Your task to perform on an android device: Add acer nitro to the cart on target.com Image 0: 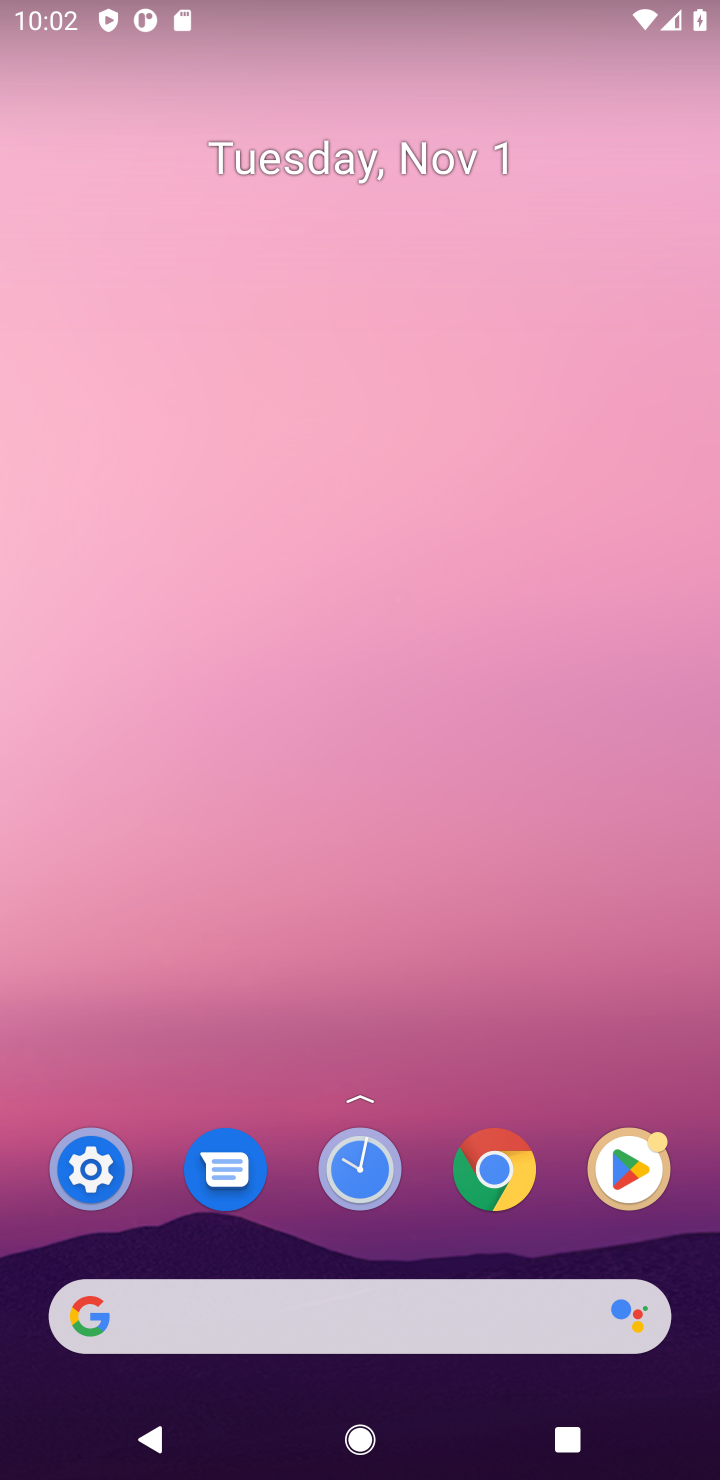
Step 0: click (475, 1164)
Your task to perform on an android device: Add acer nitro to the cart on target.com Image 1: 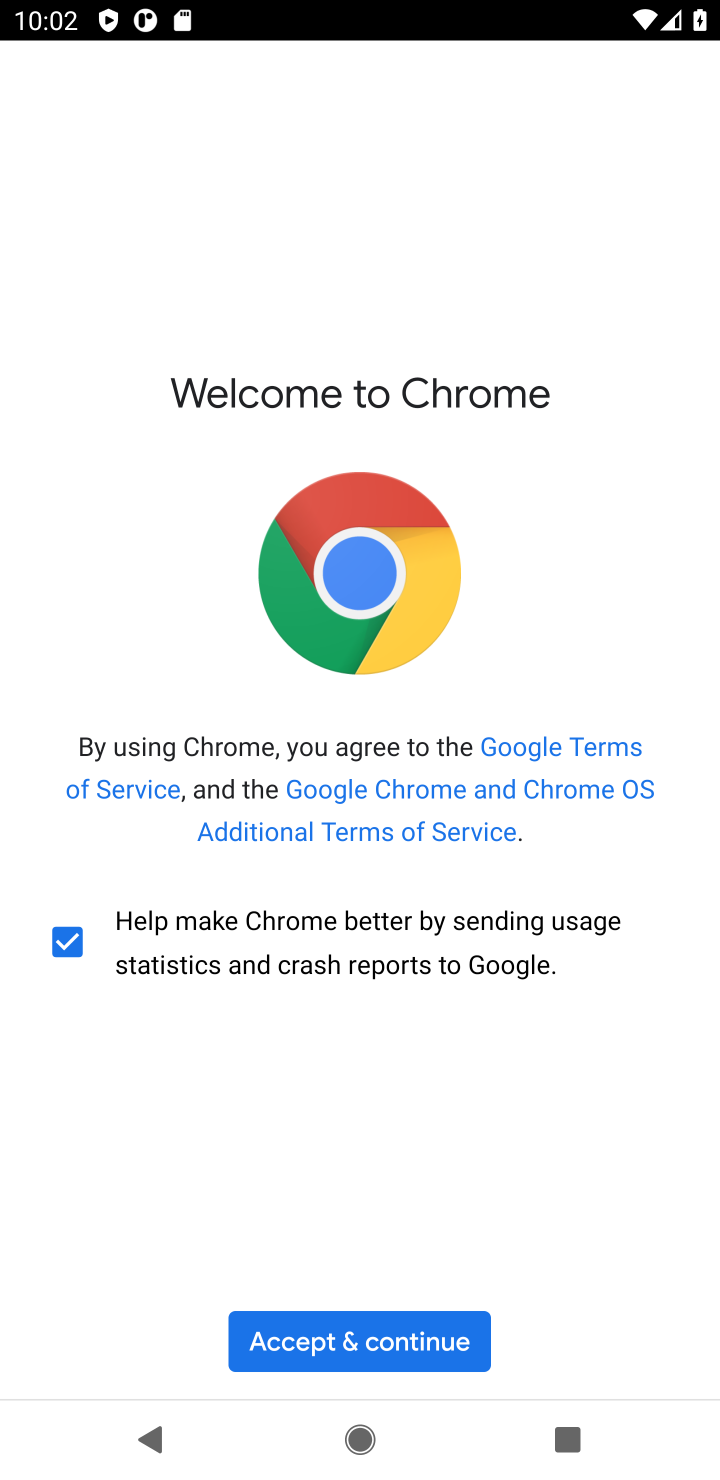
Step 1: click (408, 1322)
Your task to perform on an android device: Add acer nitro to the cart on target.com Image 2: 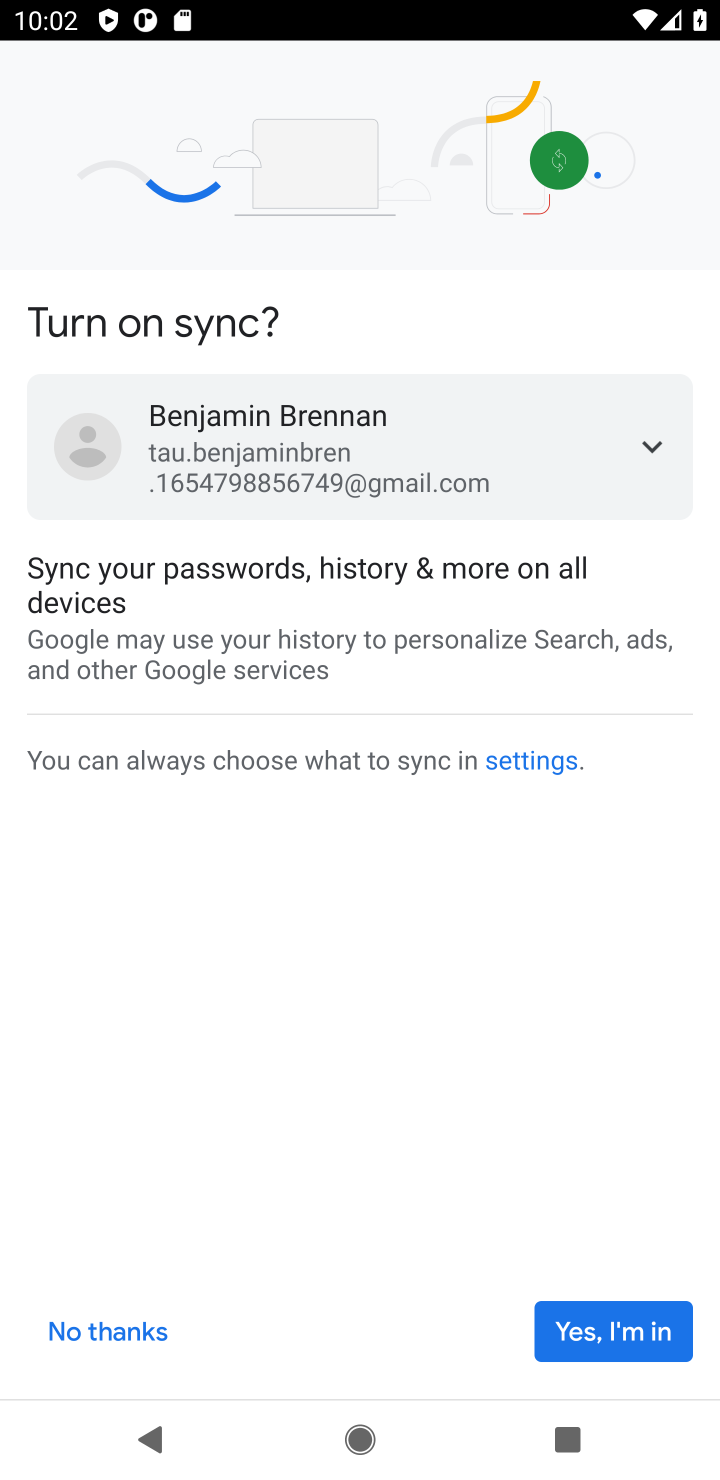
Step 2: click (606, 1334)
Your task to perform on an android device: Add acer nitro to the cart on target.com Image 3: 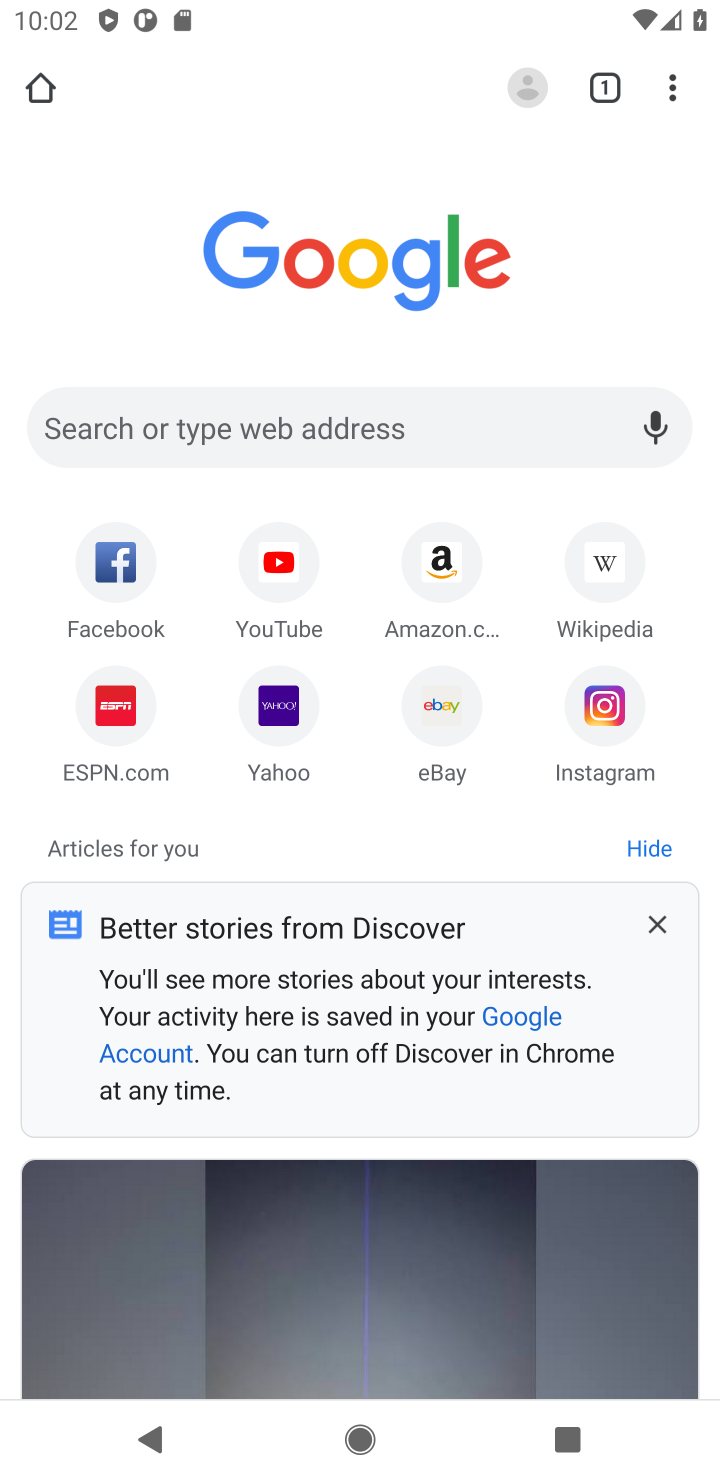
Step 3: click (424, 404)
Your task to perform on an android device: Add acer nitro to the cart on target.com Image 4: 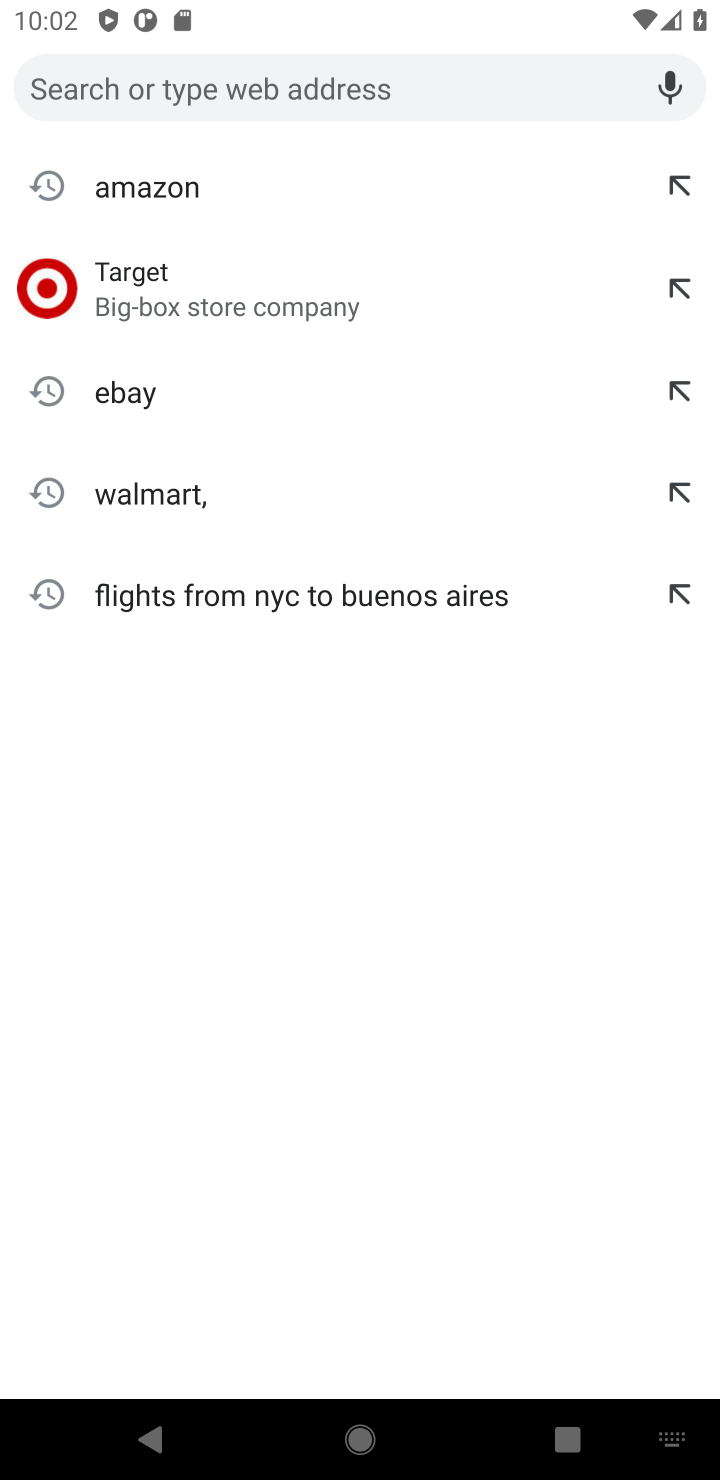
Step 4: press enter
Your task to perform on an android device: Add acer nitro to the cart on target.com Image 5: 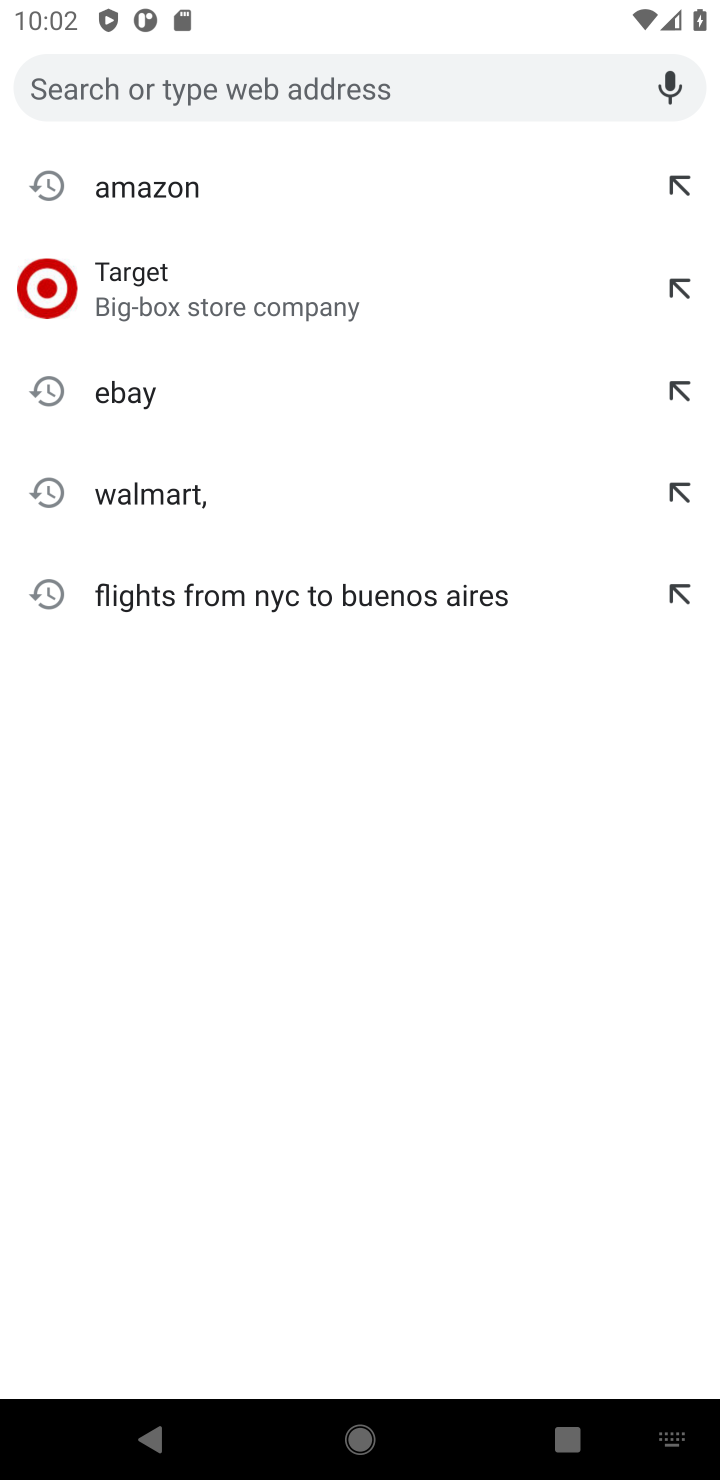
Step 5: type " target.com"
Your task to perform on an android device: Add acer nitro to the cart on target.com Image 6: 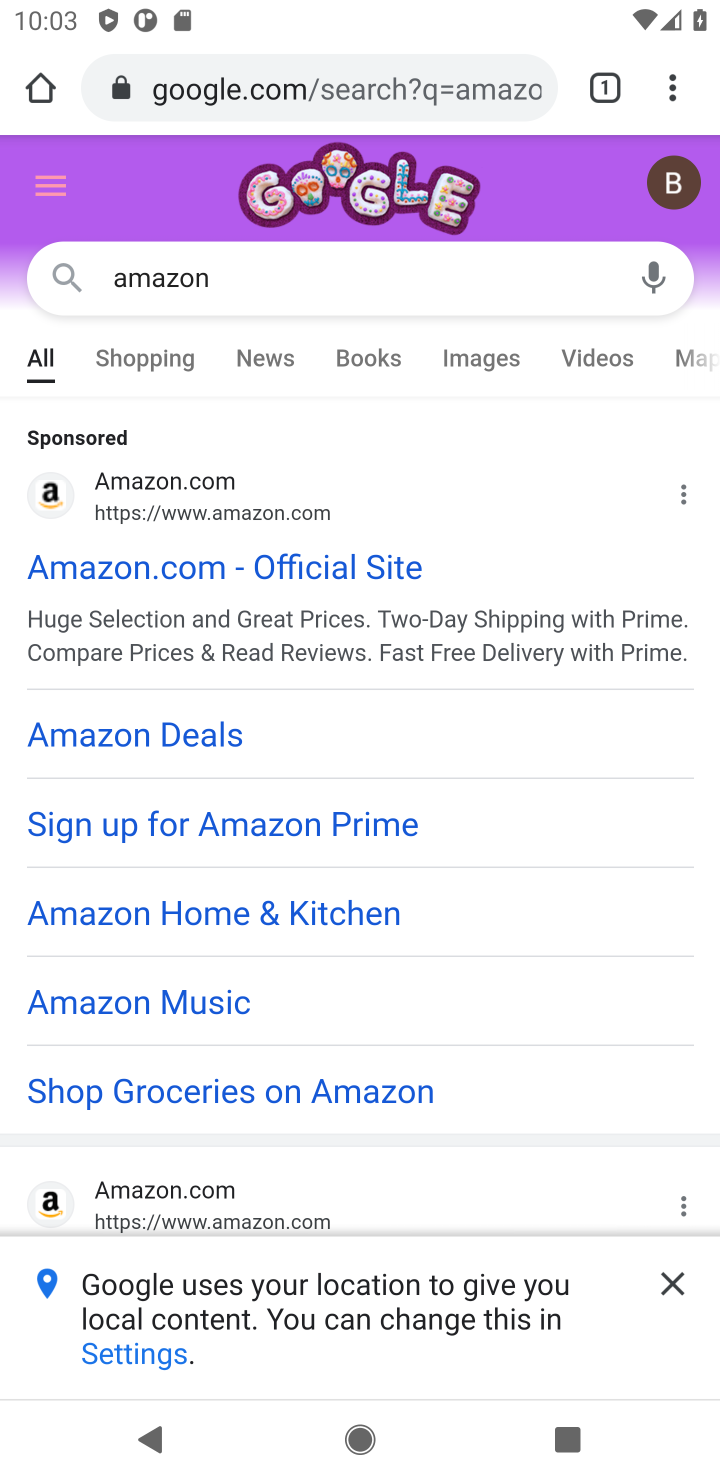
Step 6: click (317, 81)
Your task to perform on an android device: Add acer nitro to the cart on target.com Image 7: 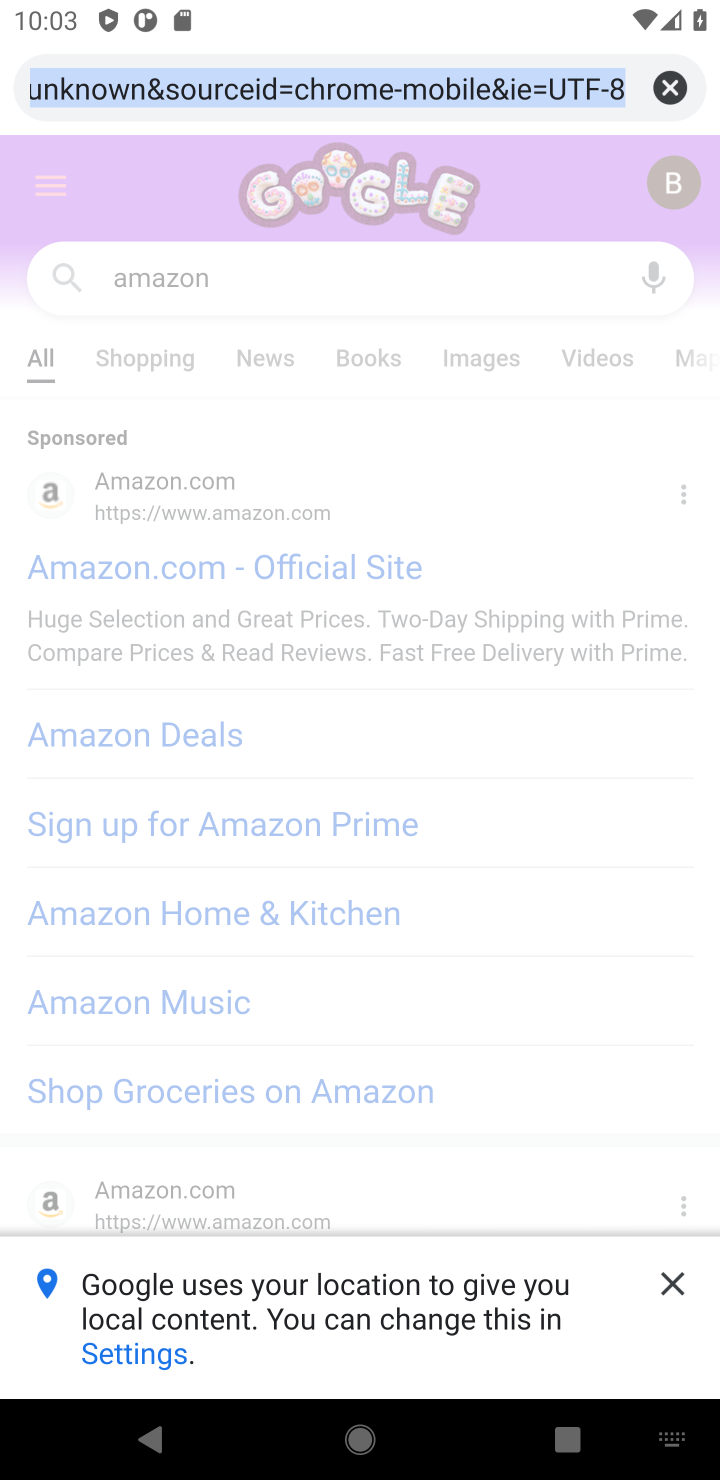
Step 7: click (658, 90)
Your task to perform on an android device: Add acer nitro to the cart on target.com Image 8: 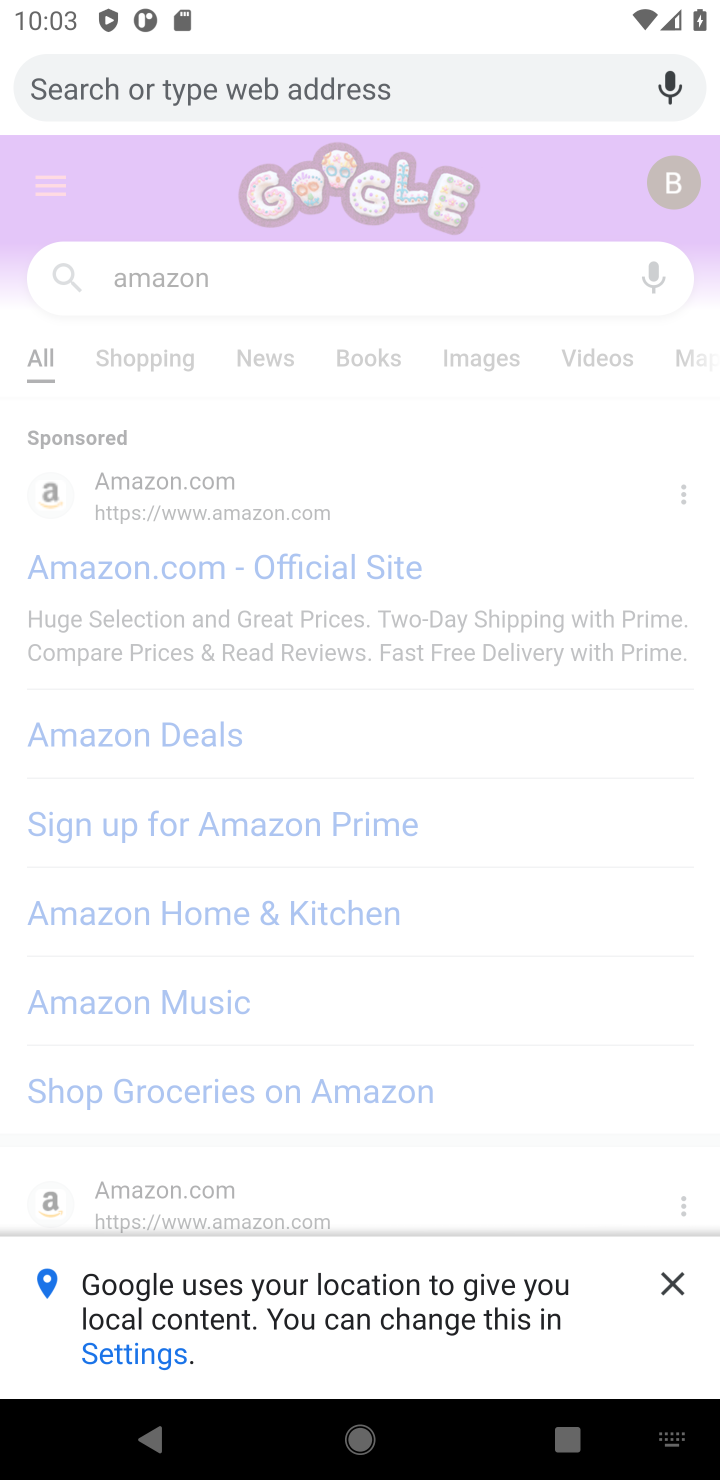
Step 8: type " target.com"
Your task to perform on an android device: Add acer nitro to the cart on target.com Image 9: 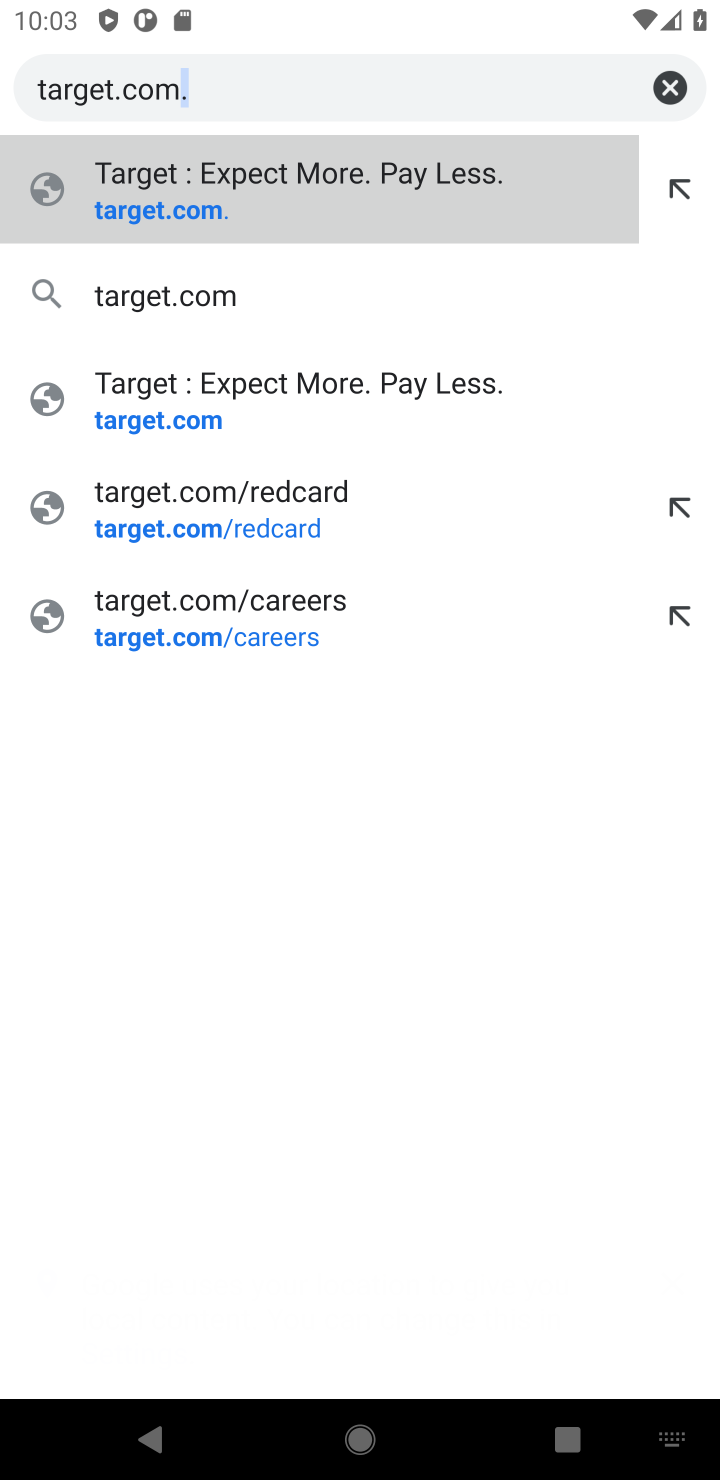
Step 9: press enter
Your task to perform on an android device: Add acer nitro to the cart on target.com Image 10: 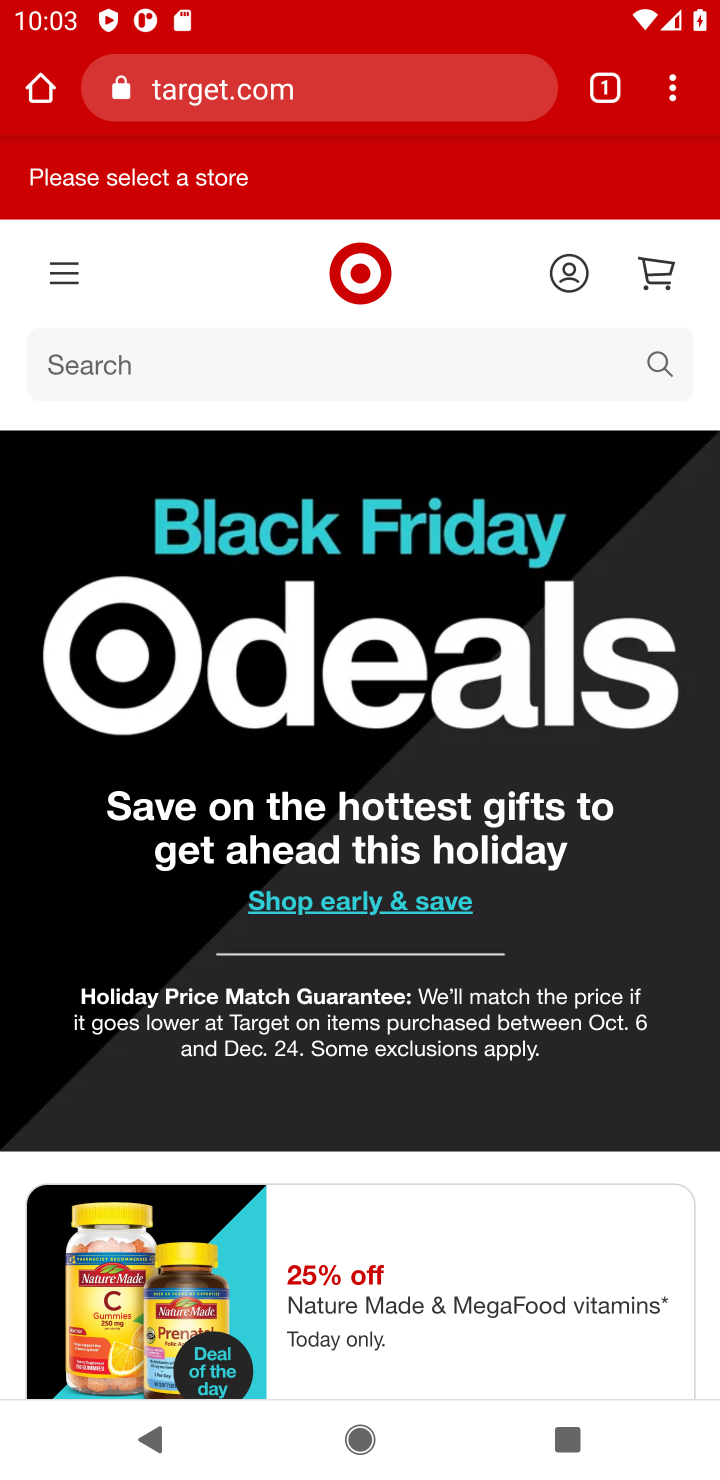
Step 10: click (649, 352)
Your task to perform on an android device: Add acer nitro to the cart on target.com Image 11: 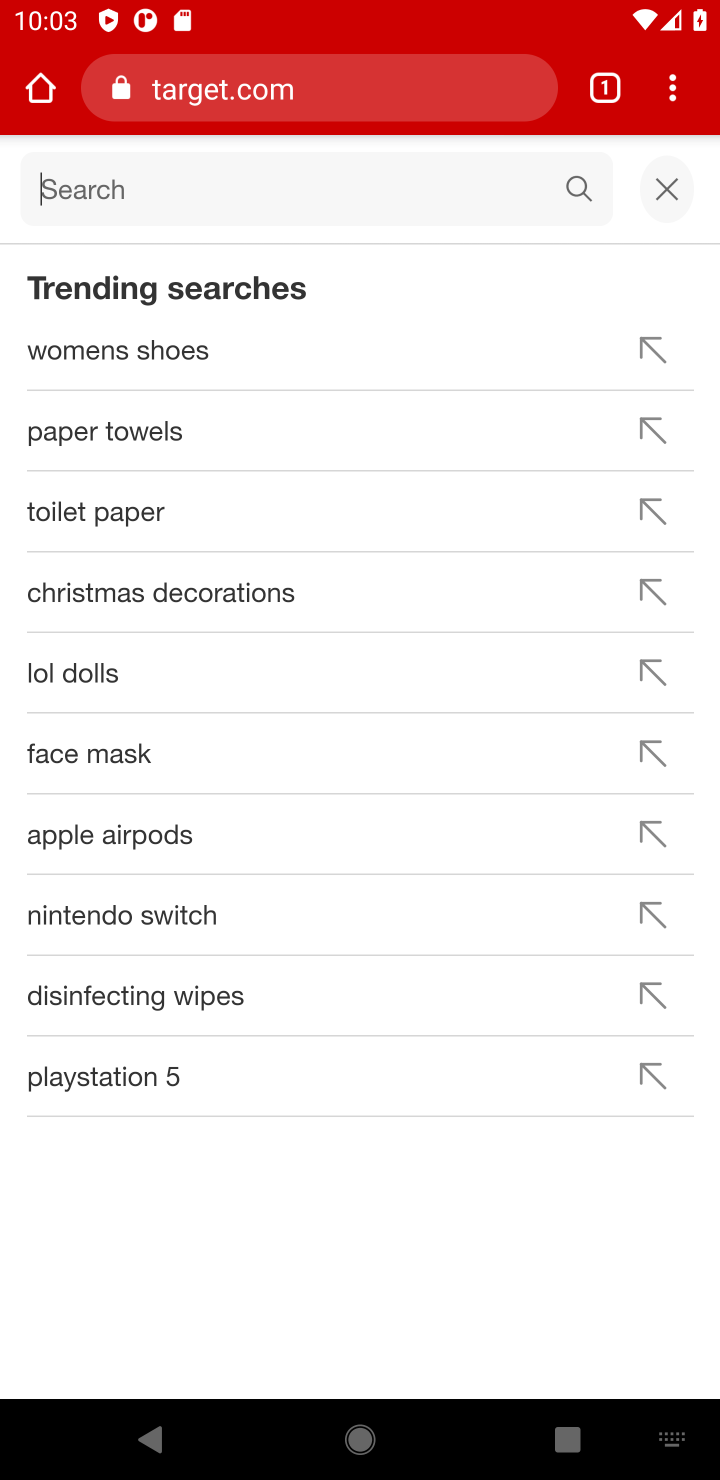
Step 11: type "acer nitro"
Your task to perform on an android device: Add acer nitro to the cart on target.com Image 12: 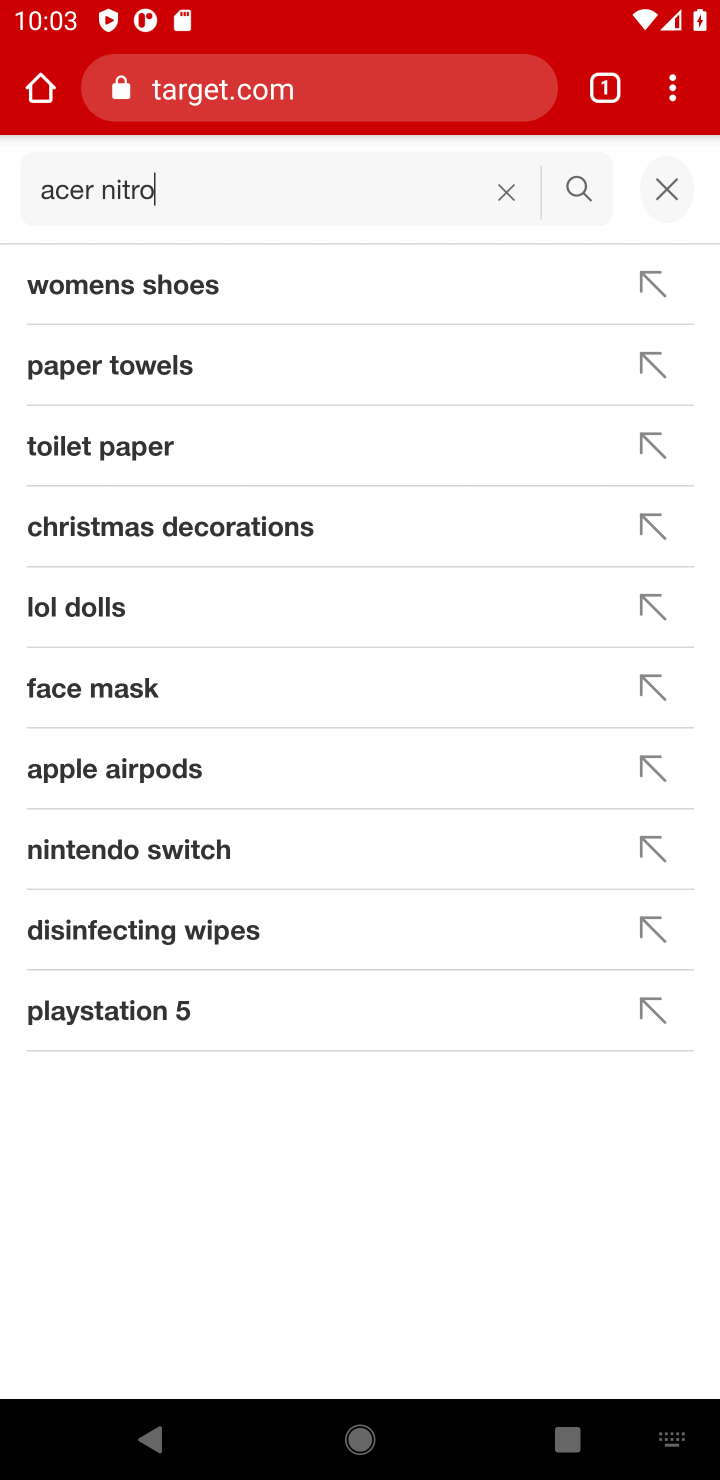
Step 12: press enter
Your task to perform on an android device: Add acer nitro to the cart on target.com Image 13: 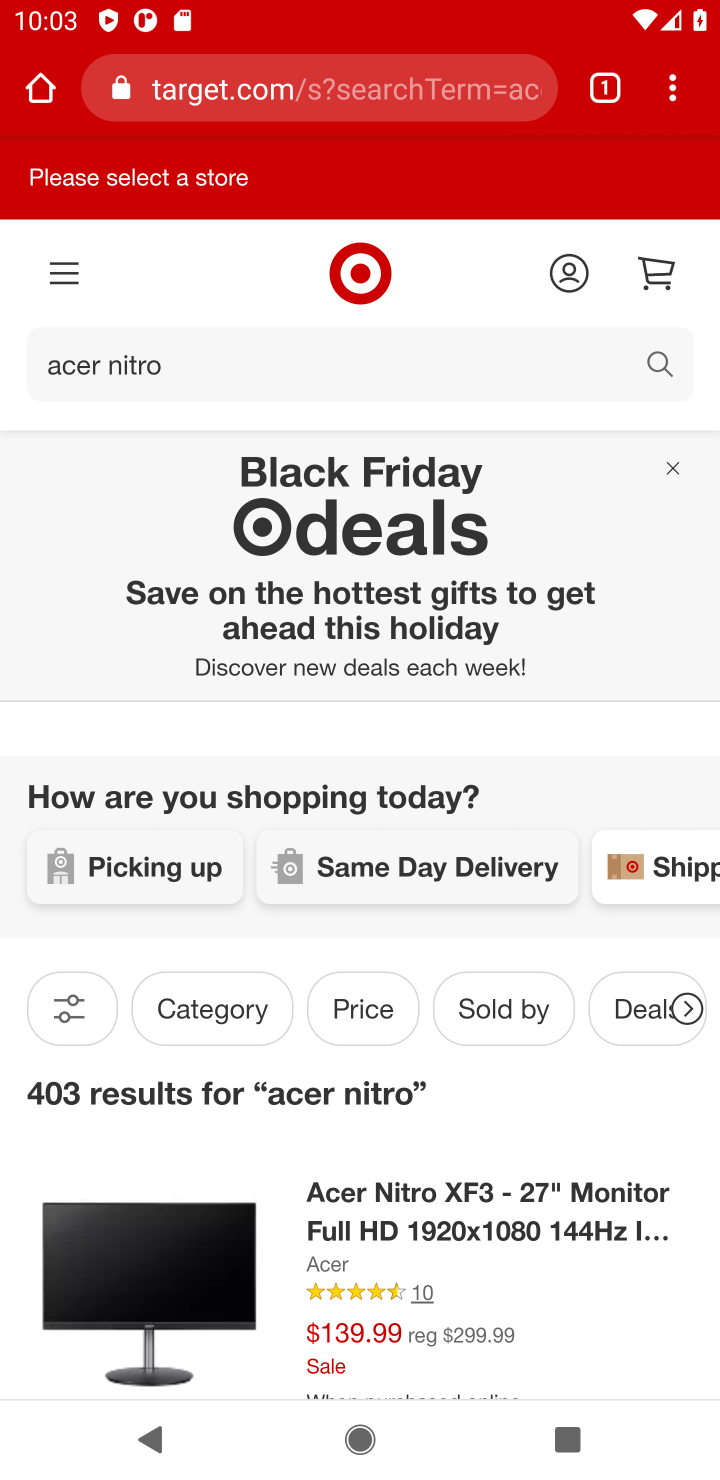
Step 13: click (164, 1232)
Your task to perform on an android device: Add acer nitro to the cart on target.com Image 14: 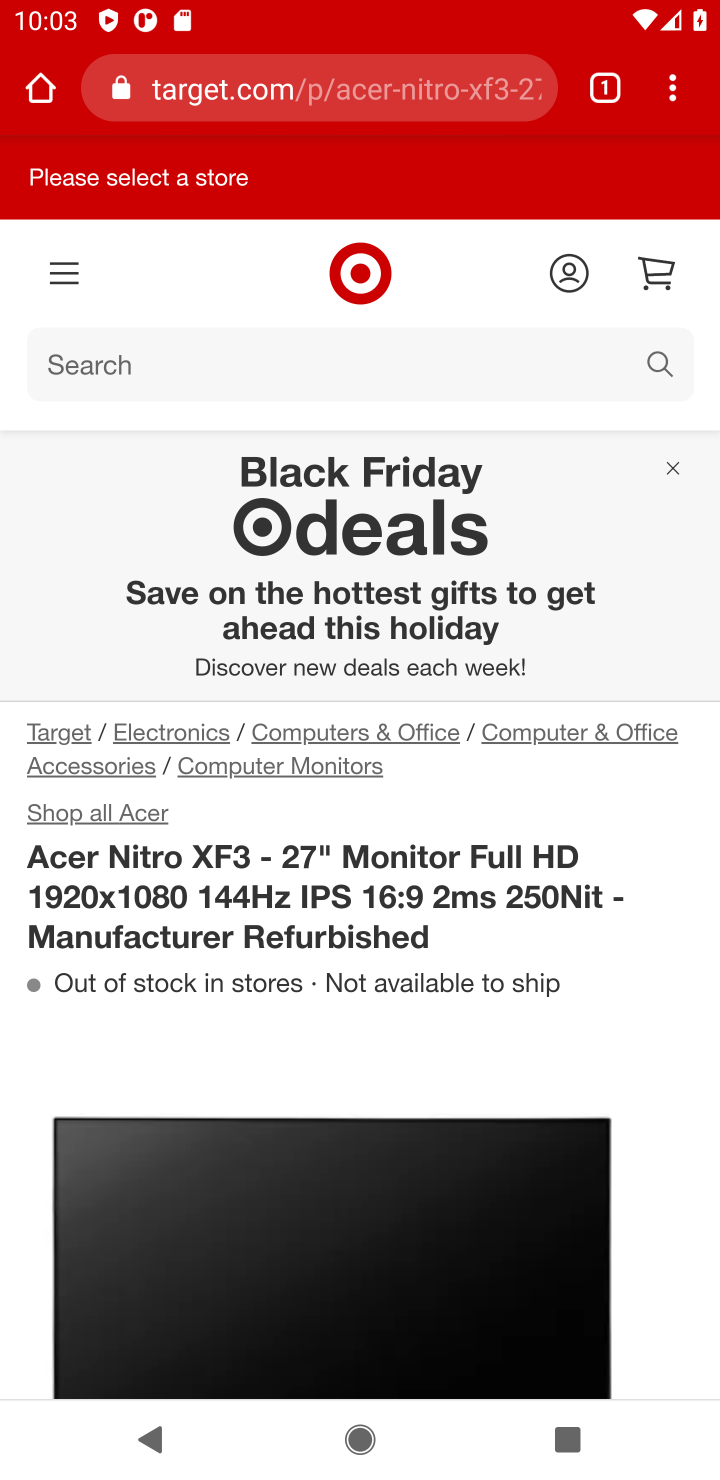
Step 14: drag from (515, 1029) to (375, 291)
Your task to perform on an android device: Add acer nitro to the cart on target.com Image 15: 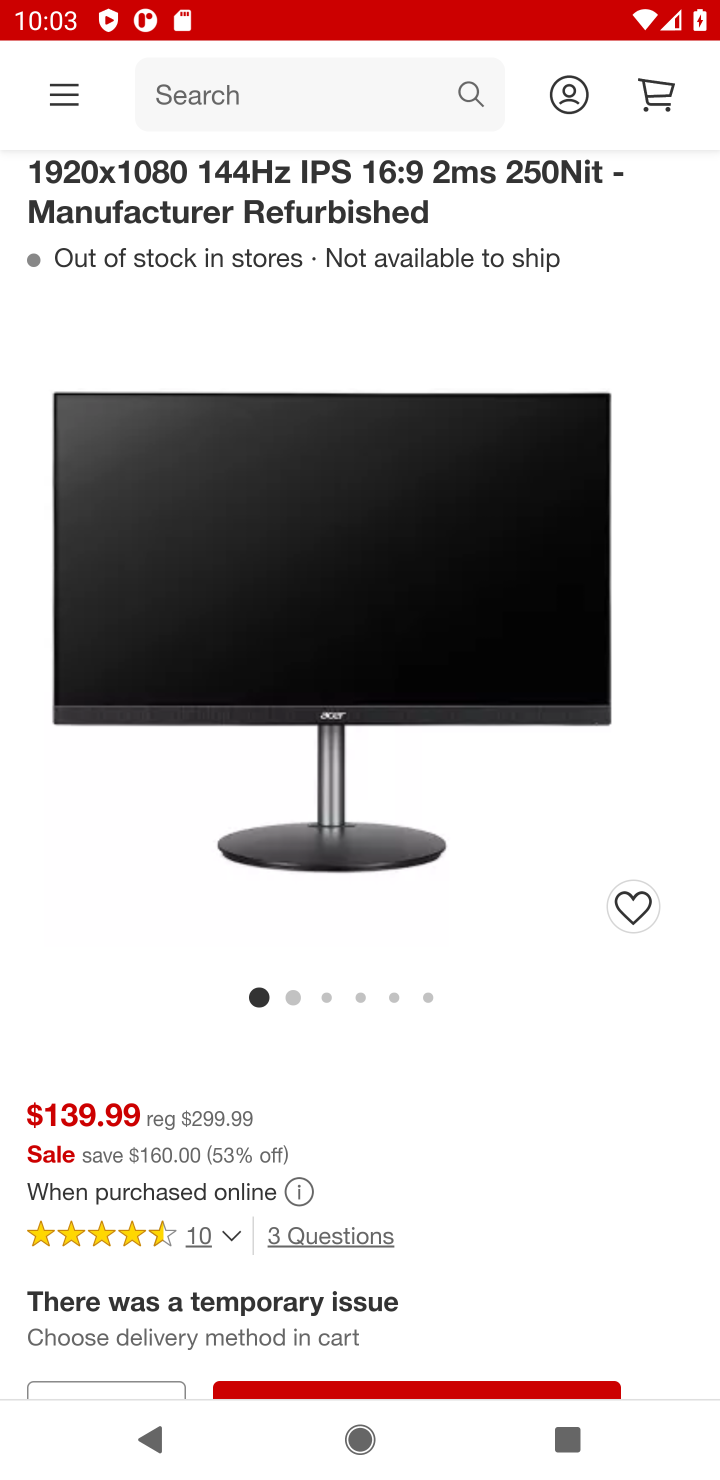
Step 15: drag from (565, 1225) to (430, 460)
Your task to perform on an android device: Add acer nitro to the cart on target.com Image 16: 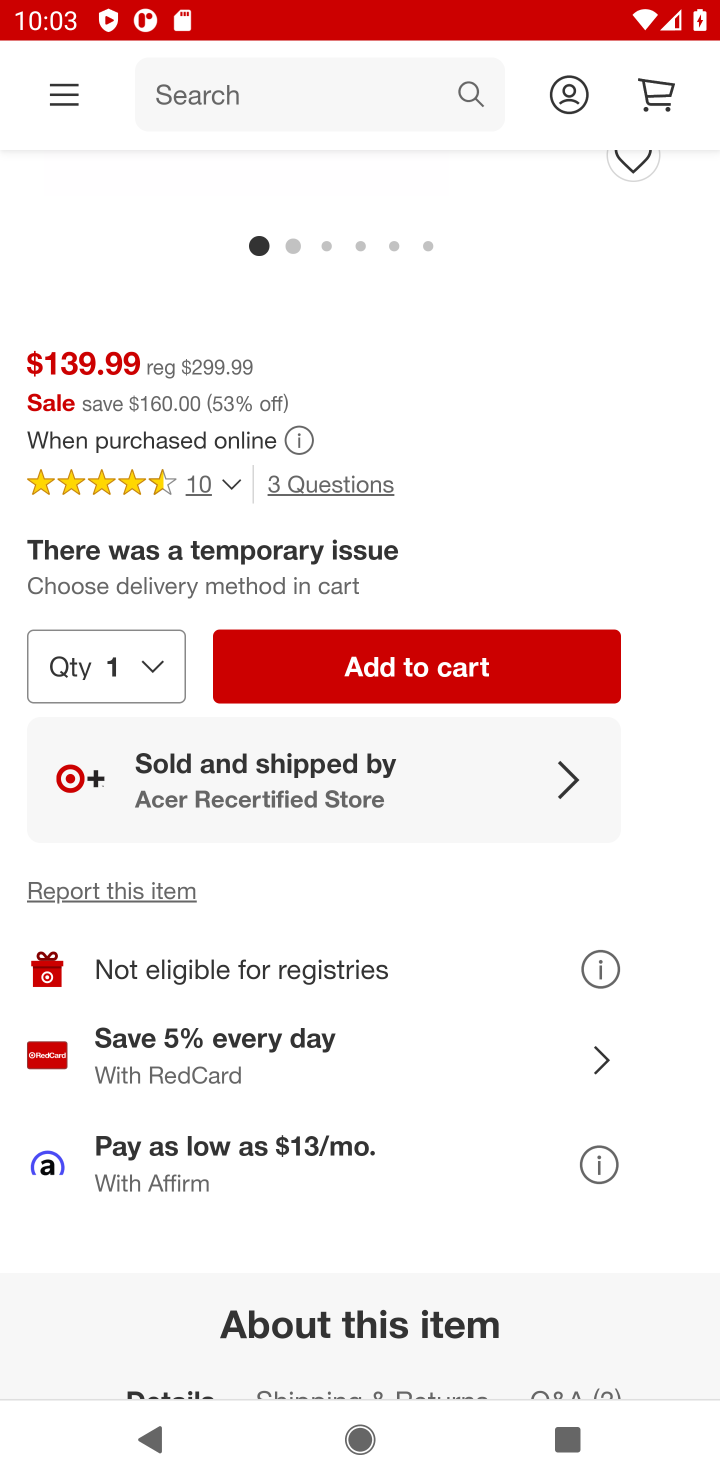
Step 16: click (453, 668)
Your task to perform on an android device: Add acer nitro to the cart on target.com Image 17: 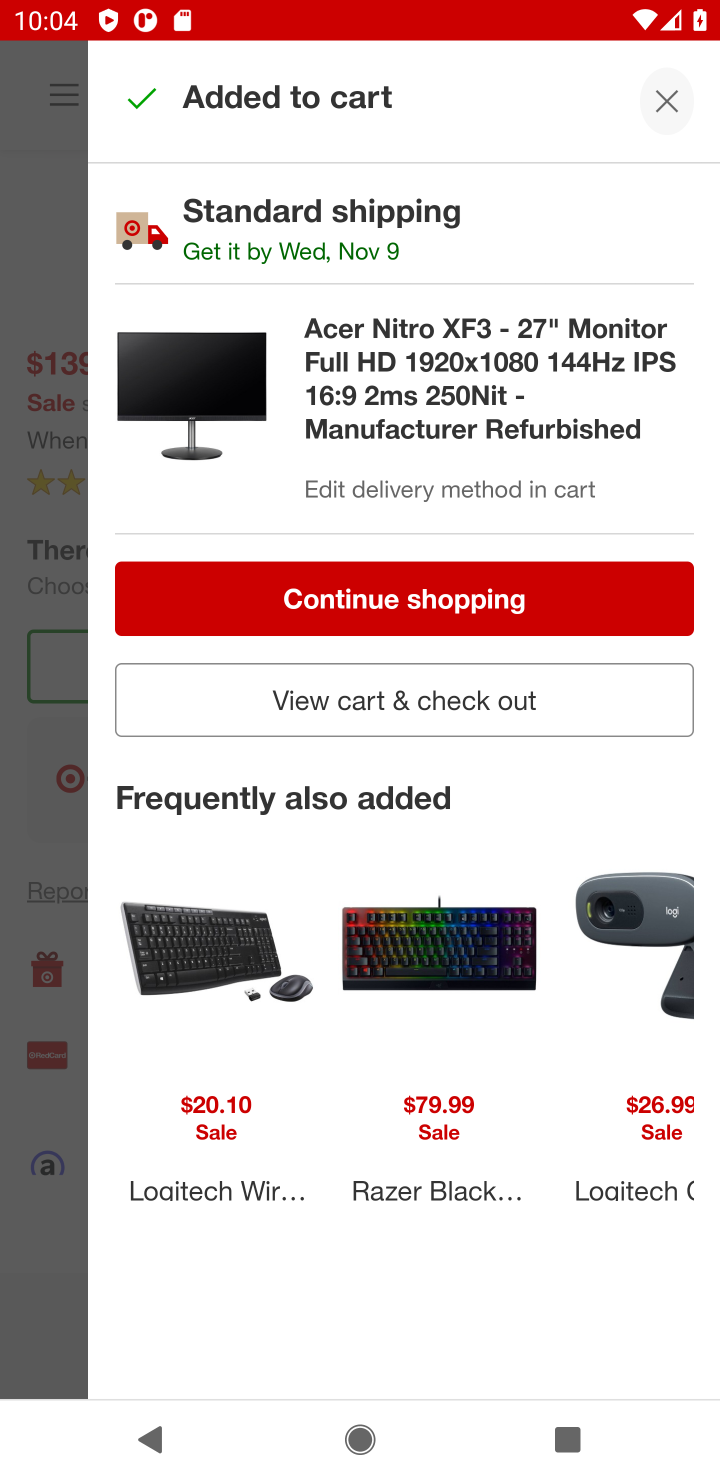
Step 17: task complete